Your task to perform on an android device: turn off javascript in the chrome app Image 0: 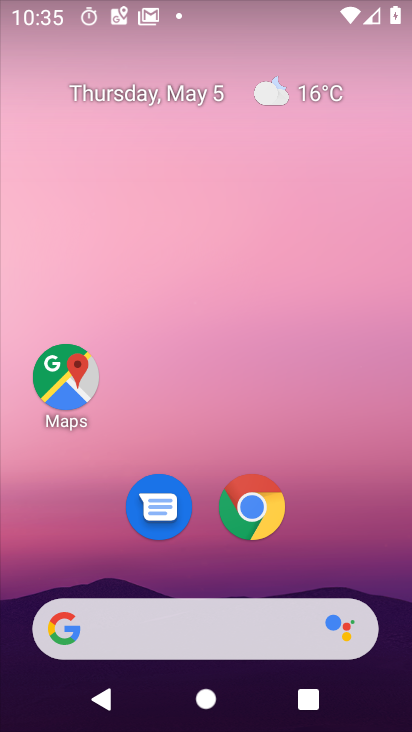
Step 0: click (255, 505)
Your task to perform on an android device: turn off javascript in the chrome app Image 1: 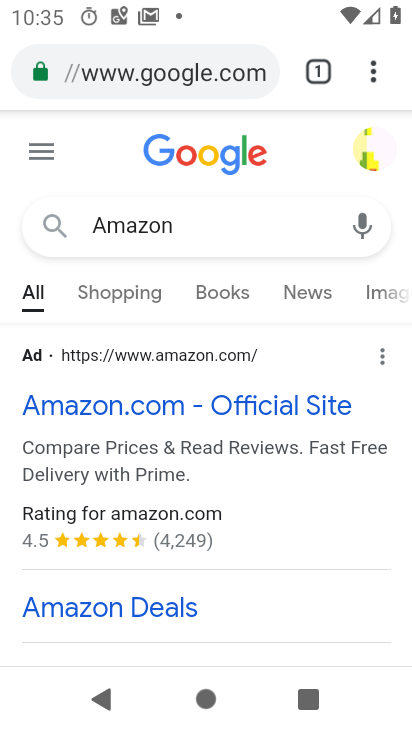
Step 1: click (368, 74)
Your task to perform on an android device: turn off javascript in the chrome app Image 2: 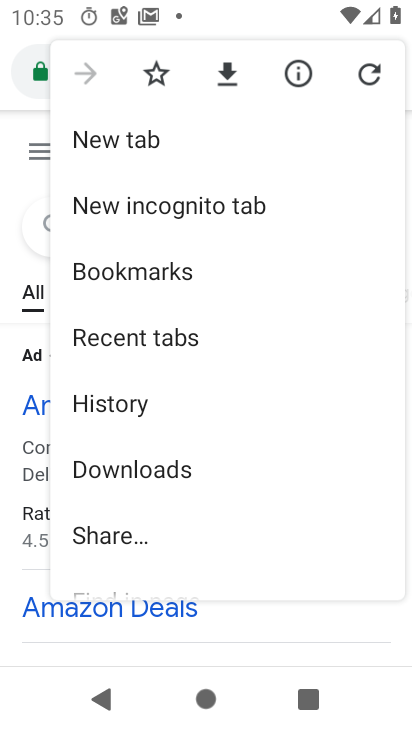
Step 2: drag from (183, 538) to (214, 119)
Your task to perform on an android device: turn off javascript in the chrome app Image 3: 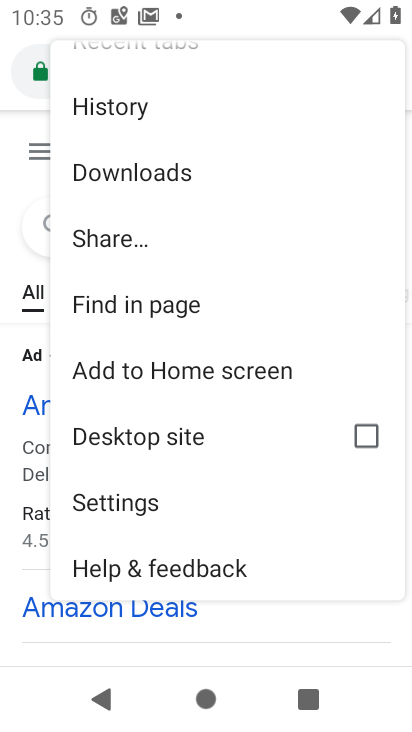
Step 3: click (137, 500)
Your task to perform on an android device: turn off javascript in the chrome app Image 4: 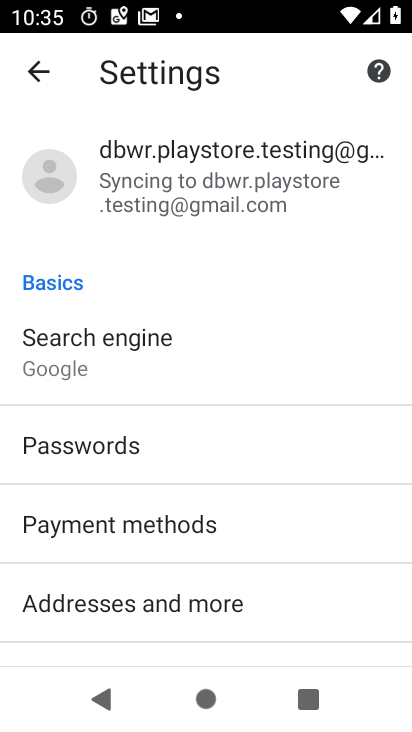
Step 4: drag from (157, 580) to (152, 179)
Your task to perform on an android device: turn off javascript in the chrome app Image 5: 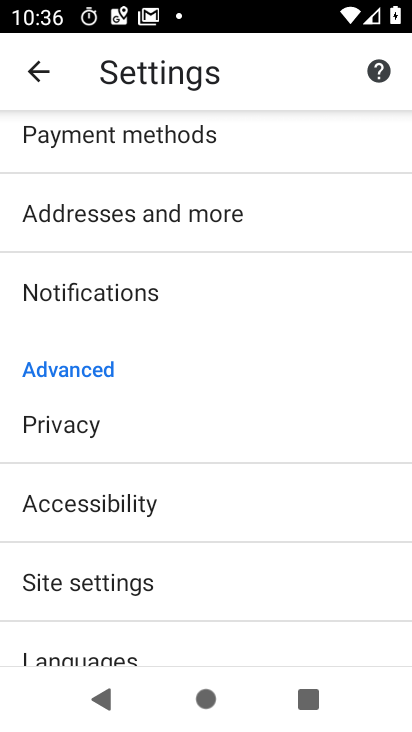
Step 5: drag from (148, 578) to (211, 172)
Your task to perform on an android device: turn off javascript in the chrome app Image 6: 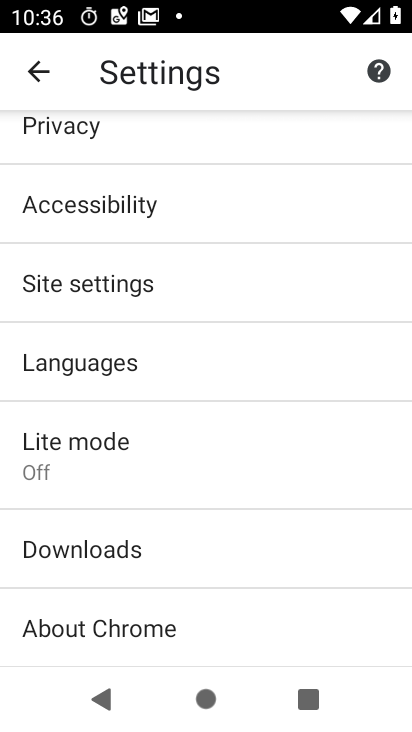
Step 6: drag from (151, 497) to (183, 286)
Your task to perform on an android device: turn off javascript in the chrome app Image 7: 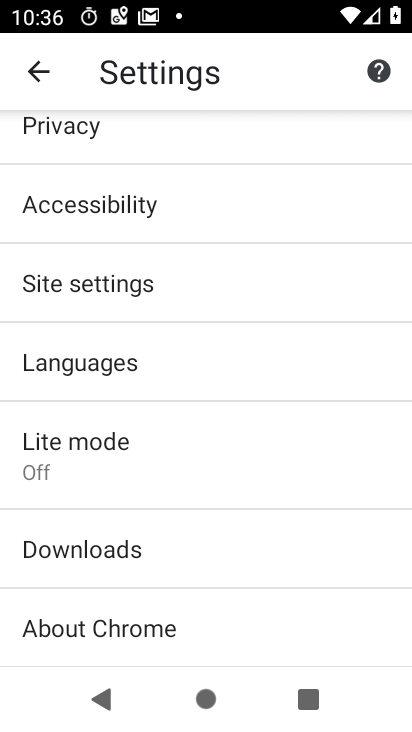
Step 7: click (126, 281)
Your task to perform on an android device: turn off javascript in the chrome app Image 8: 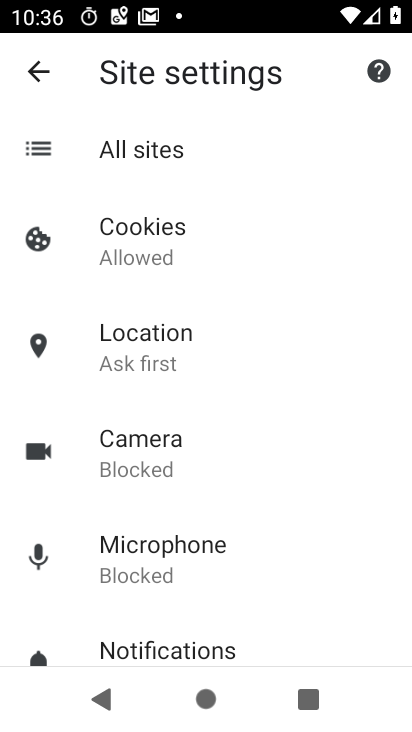
Step 8: drag from (170, 581) to (227, 156)
Your task to perform on an android device: turn off javascript in the chrome app Image 9: 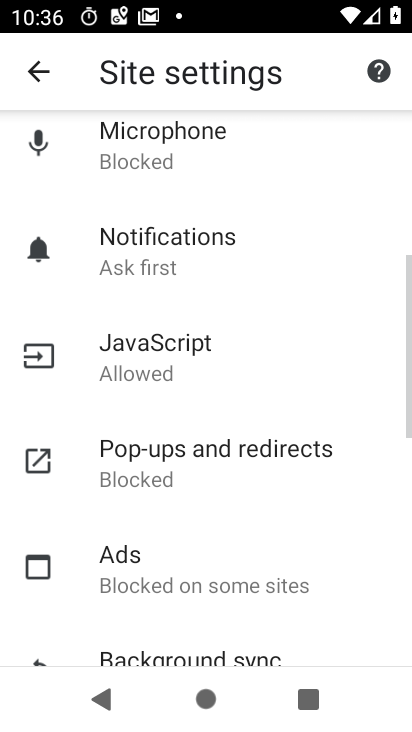
Step 9: drag from (201, 551) to (250, 147)
Your task to perform on an android device: turn off javascript in the chrome app Image 10: 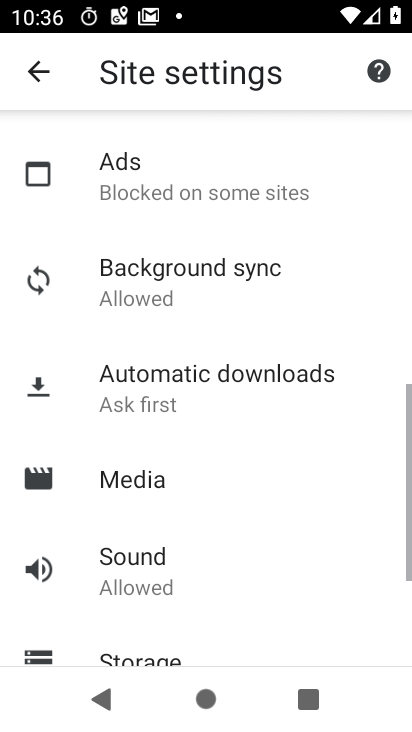
Step 10: drag from (180, 514) to (216, 189)
Your task to perform on an android device: turn off javascript in the chrome app Image 11: 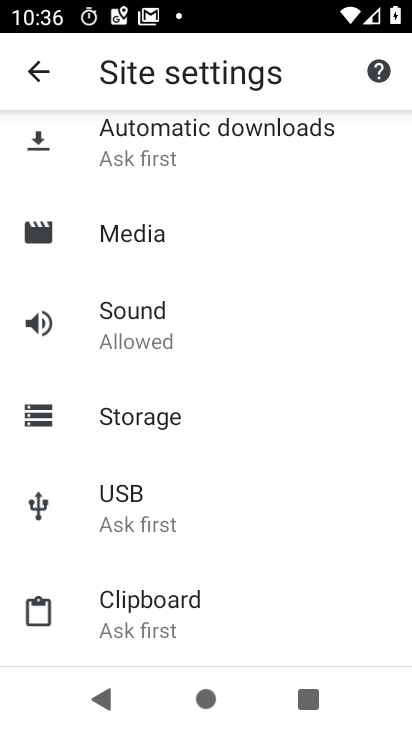
Step 11: drag from (178, 294) to (216, 582)
Your task to perform on an android device: turn off javascript in the chrome app Image 12: 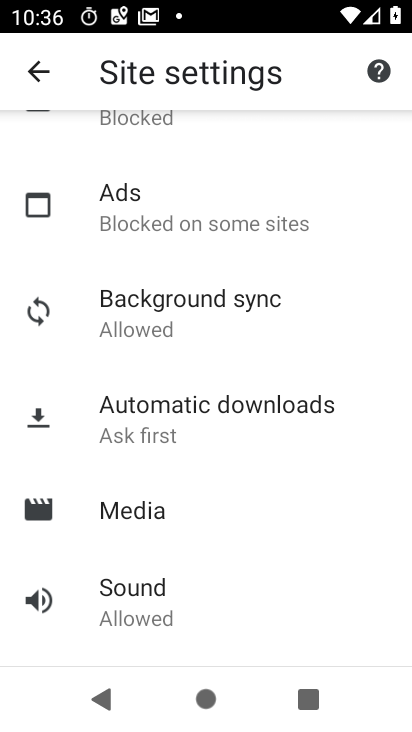
Step 12: drag from (172, 558) to (263, 650)
Your task to perform on an android device: turn off javascript in the chrome app Image 13: 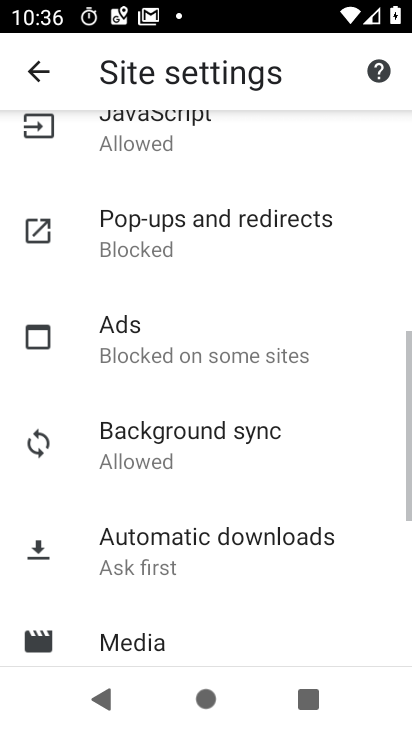
Step 13: drag from (194, 268) to (254, 622)
Your task to perform on an android device: turn off javascript in the chrome app Image 14: 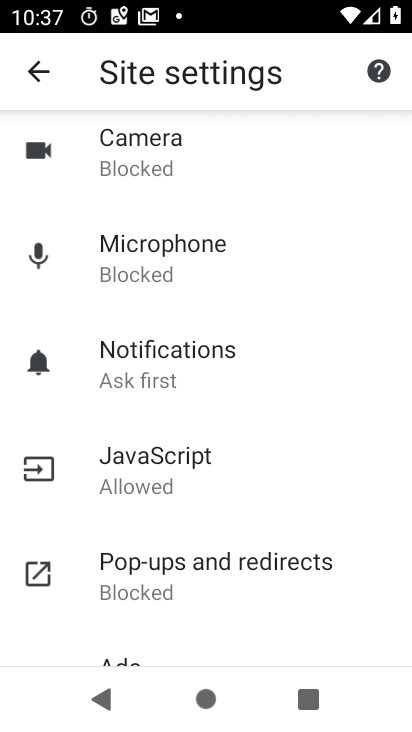
Step 14: click (170, 477)
Your task to perform on an android device: turn off javascript in the chrome app Image 15: 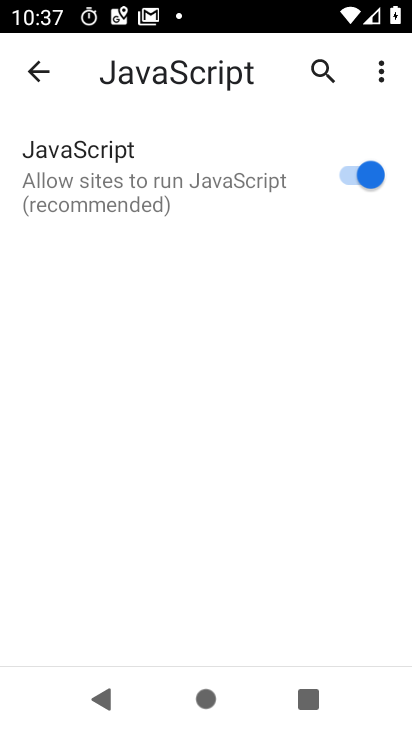
Step 15: click (348, 183)
Your task to perform on an android device: turn off javascript in the chrome app Image 16: 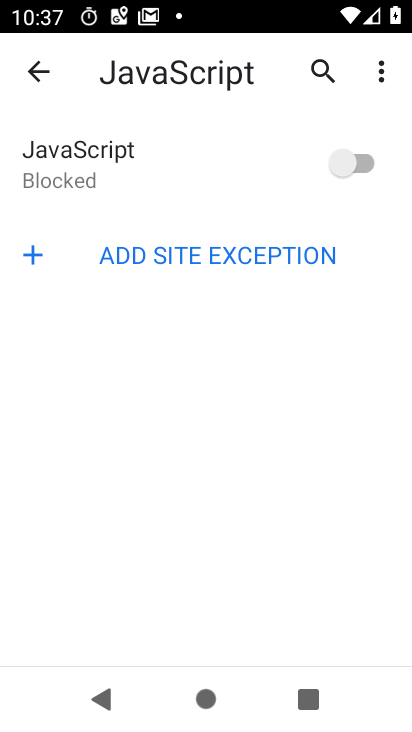
Step 16: task complete